Your task to perform on an android device: turn on notifications settings in the gmail app Image 0: 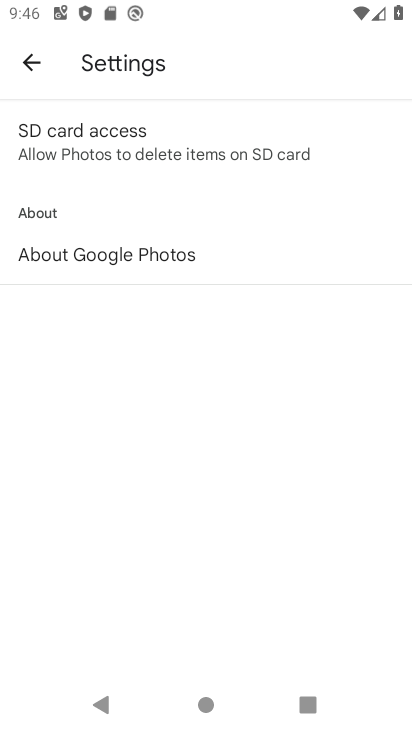
Step 0: press home button
Your task to perform on an android device: turn on notifications settings in the gmail app Image 1: 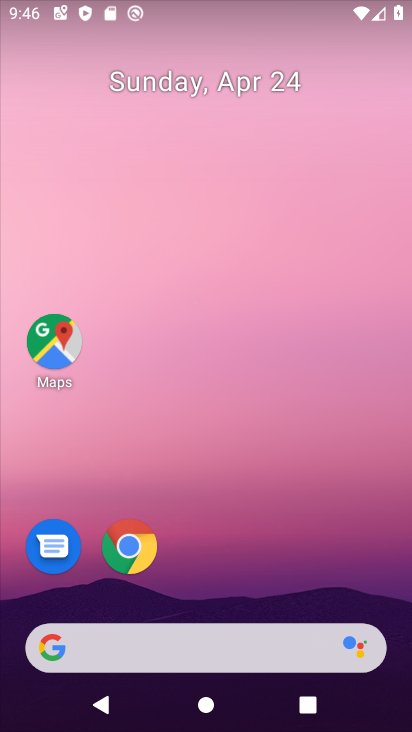
Step 1: drag from (261, 591) to (269, 72)
Your task to perform on an android device: turn on notifications settings in the gmail app Image 2: 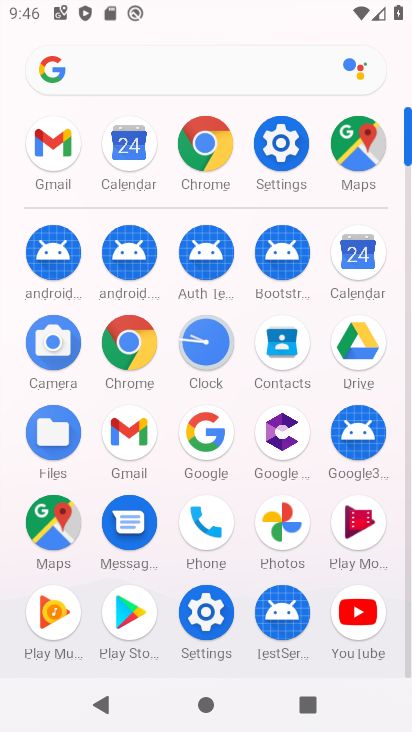
Step 2: click (129, 456)
Your task to perform on an android device: turn on notifications settings in the gmail app Image 3: 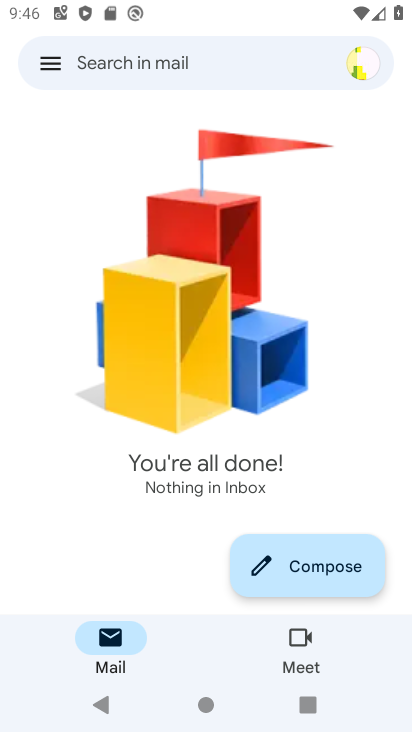
Step 3: click (42, 61)
Your task to perform on an android device: turn on notifications settings in the gmail app Image 4: 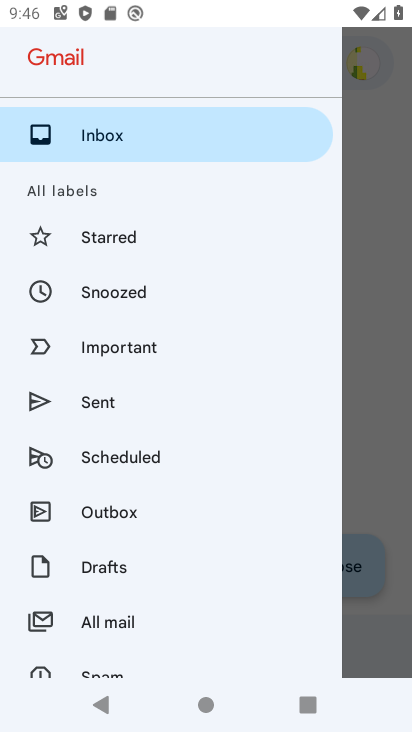
Step 4: drag from (107, 526) to (130, 316)
Your task to perform on an android device: turn on notifications settings in the gmail app Image 5: 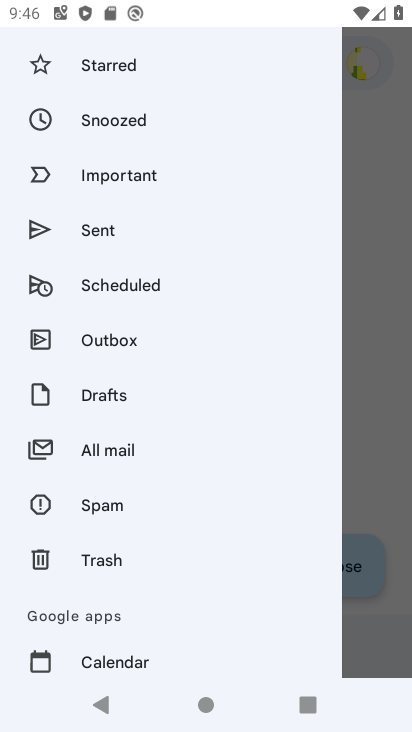
Step 5: drag from (132, 562) to (214, 197)
Your task to perform on an android device: turn on notifications settings in the gmail app Image 6: 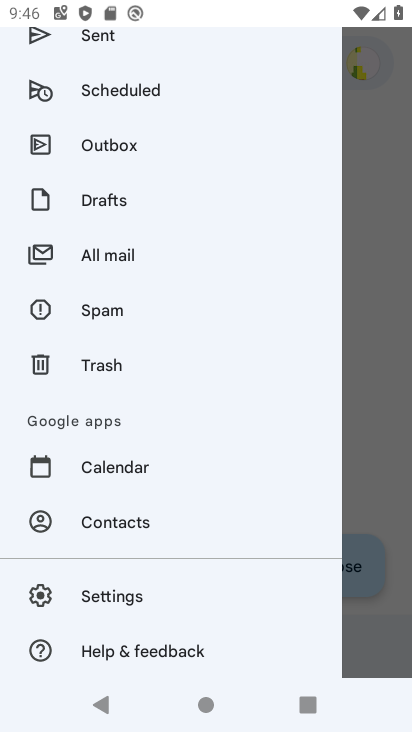
Step 6: click (120, 590)
Your task to perform on an android device: turn on notifications settings in the gmail app Image 7: 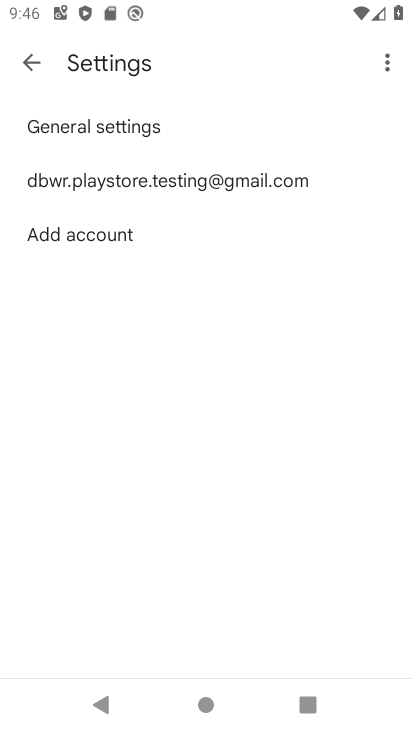
Step 7: click (107, 115)
Your task to perform on an android device: turn on notifications settings in the gmail app Image 8: 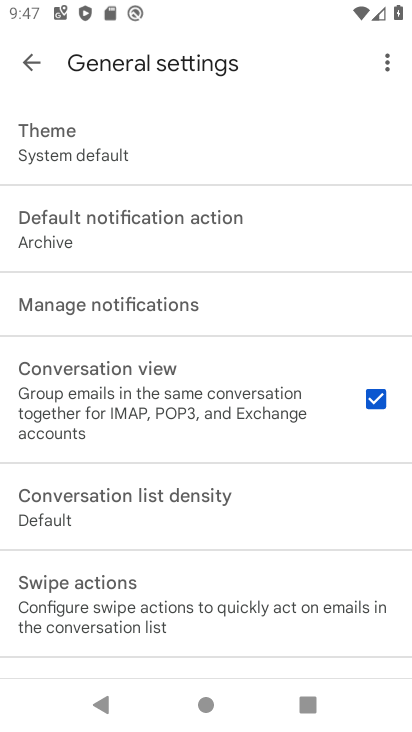
Step 8: click (112, 301)
Your task to perform on an android device: turn on notifications settings in the gmail app Image 9: 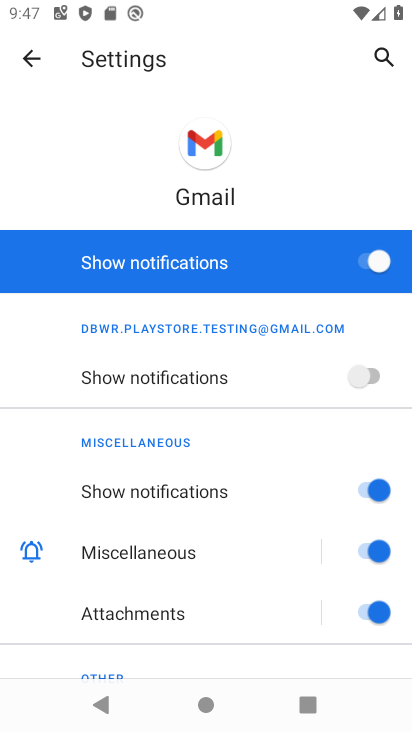
Step 9: task complete